Your task to perform on an android device: Turn off the flashlight Image 0: 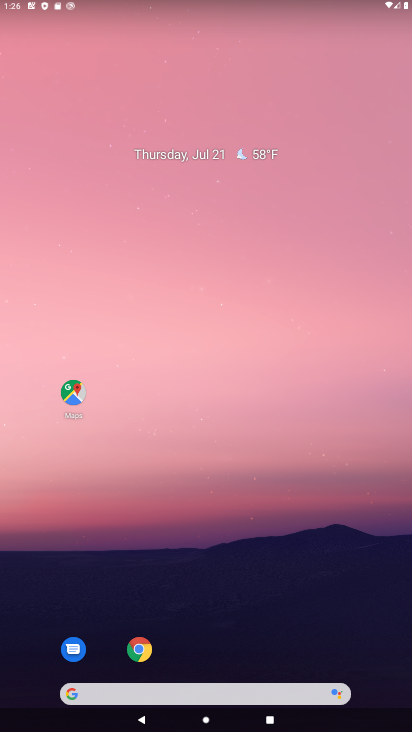
Step 0: drag from (247, 660) to (209, 96)
Your task to perform on an android device: Turn off the flashlight Image 1: 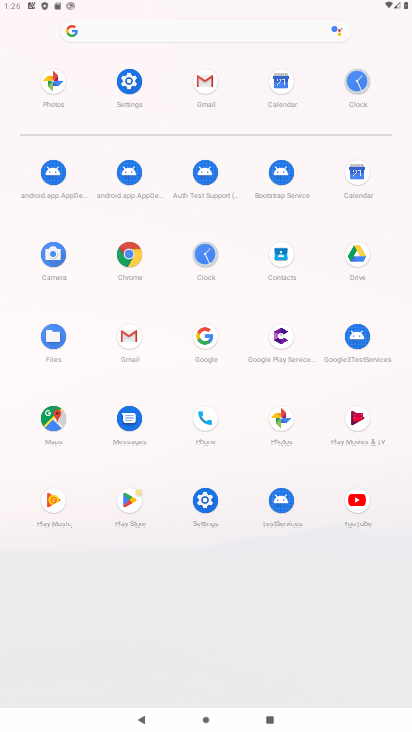
Step 1: click (119, 80)
Your task to perform on an android device: Turn off the flashlight Image 2: 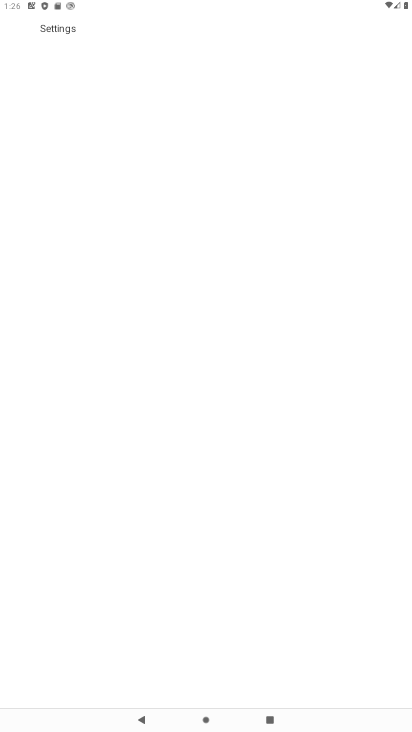
Step 2: task complete